Your task to perform on an android device: Open calendar and show me the fourth week of next month Image 0: 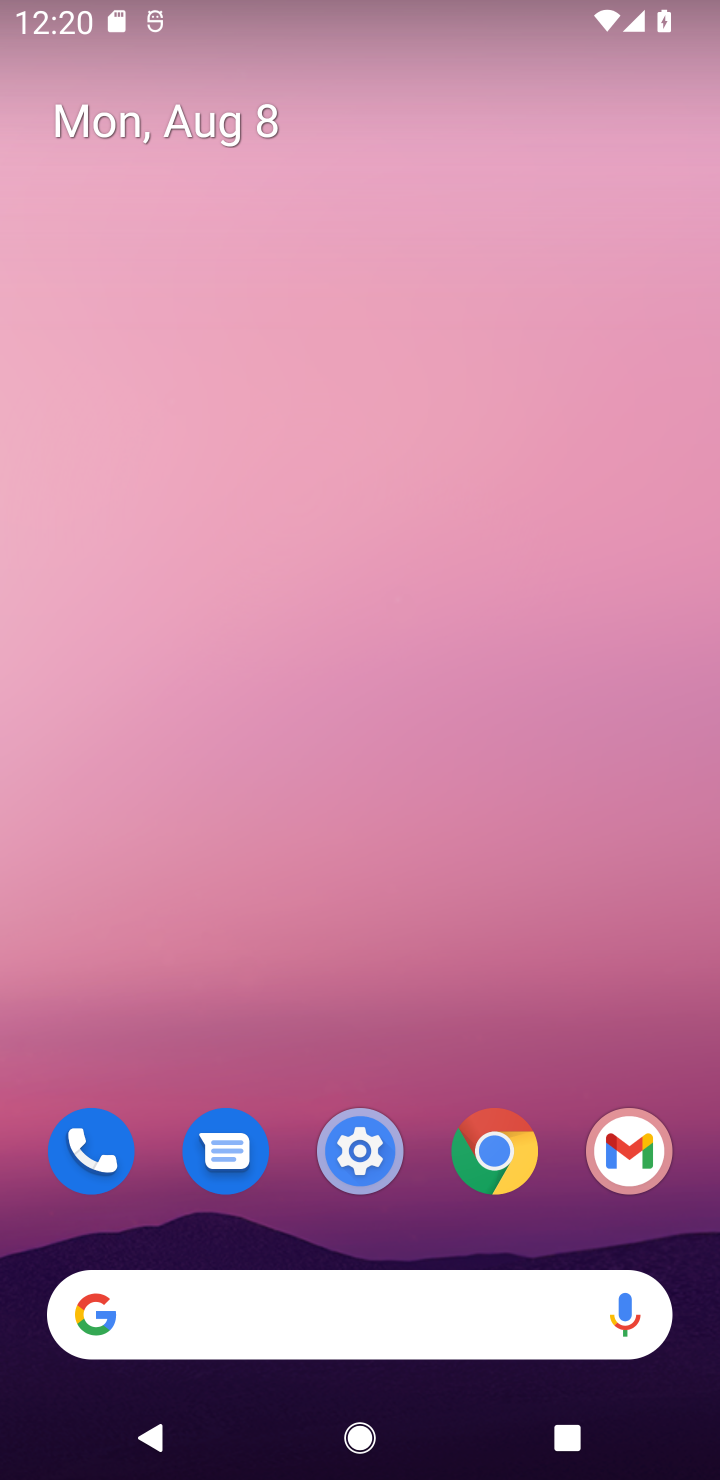
Step 0: drag from (363, 1259) to (313, 500)
Your task to perform on an android device: Open calendar and show me the fourth week of next month Image 1: 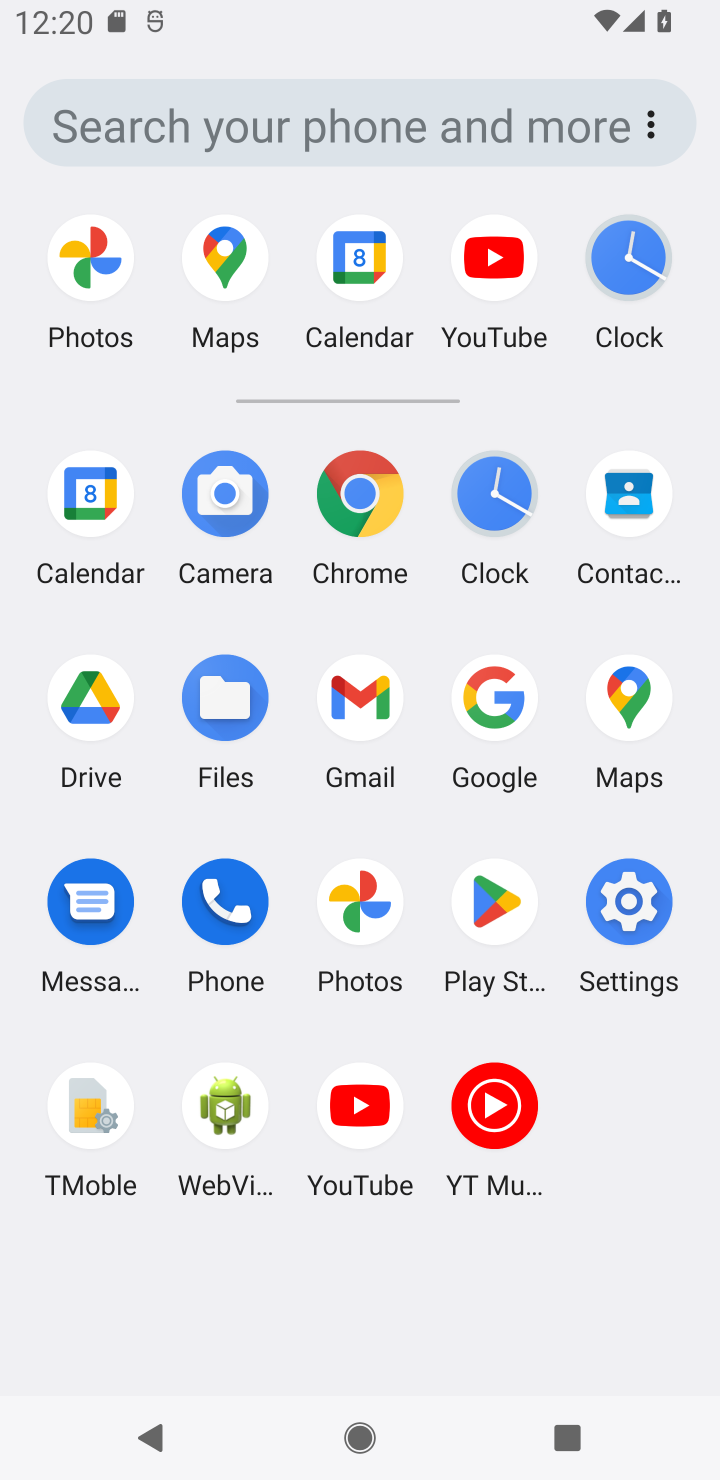
Step 1: click (91, 493)
Your task to perform on an android device: Open calendar and show me the fourth week of next month Image 2: 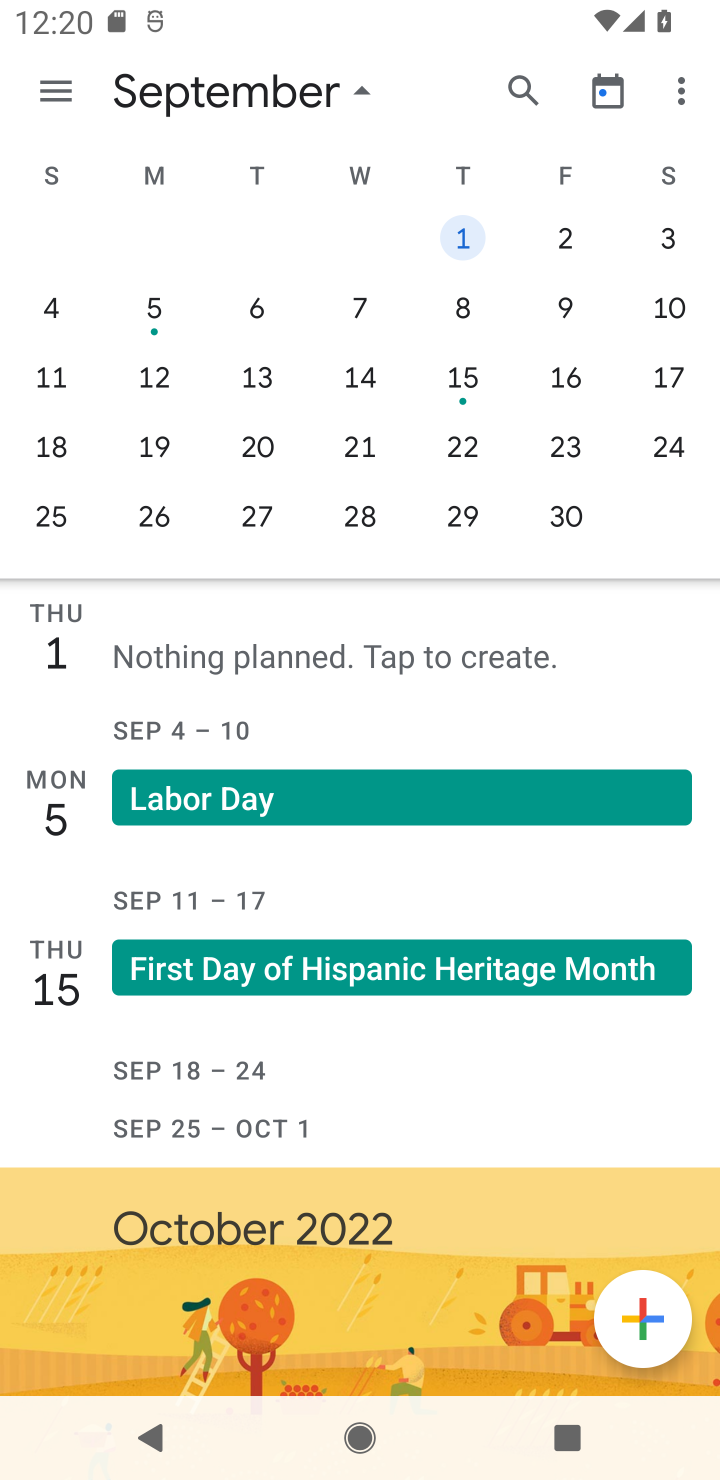
Step 2: click (64, 442)
Your task to perform on an android device: Open calendar and show me the fourth week of next month Image 3: 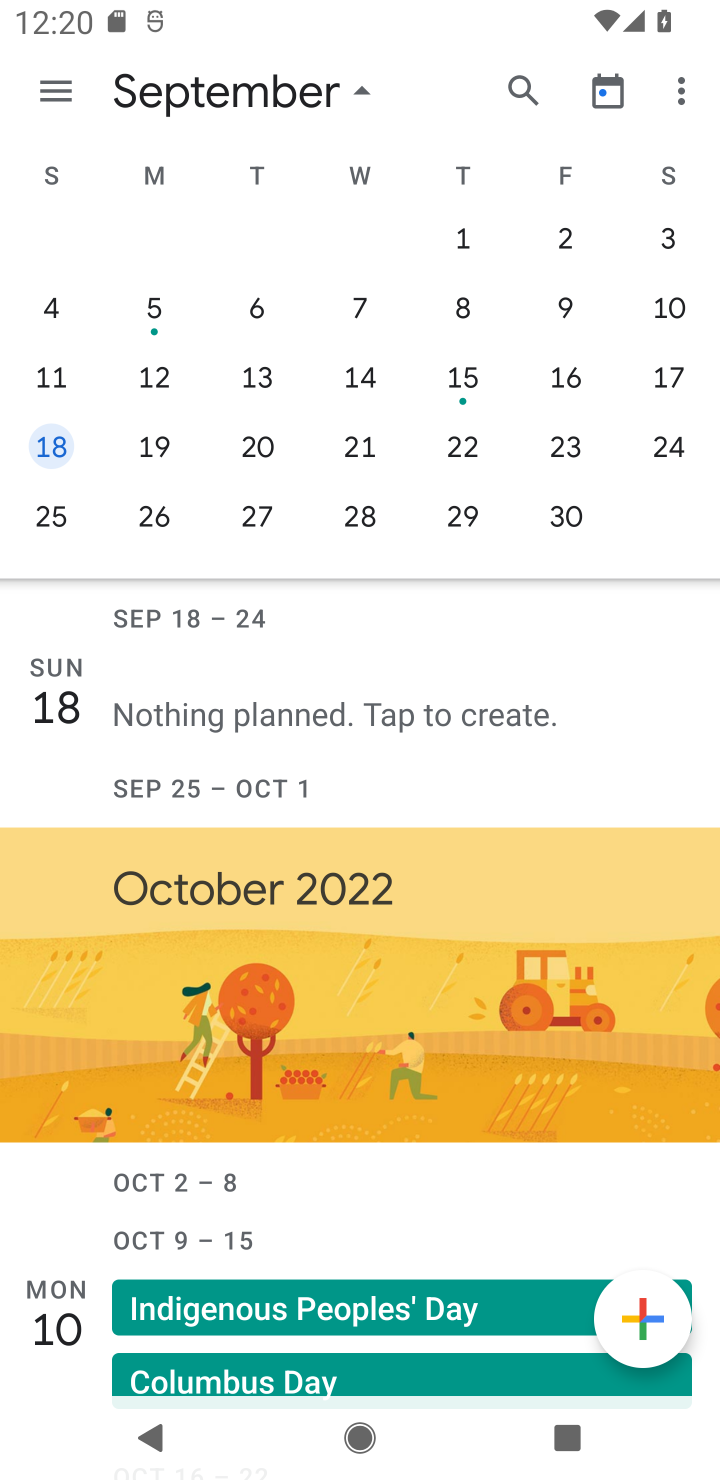
Step 3: task complete